Your task to perform on an android device: turn notification dots on Image 0: 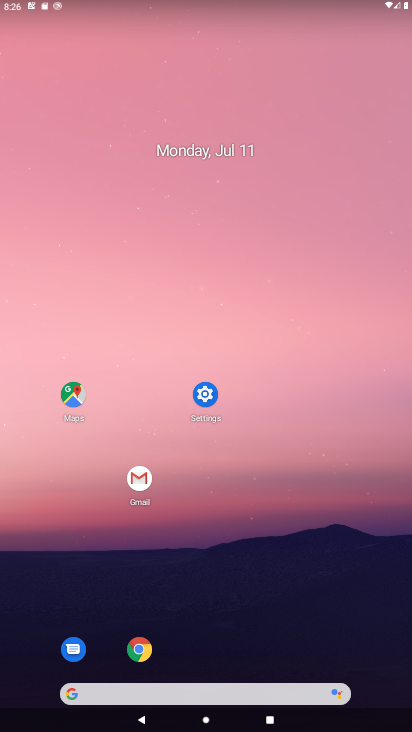
Step 0: click (195, 390)
Your task to perform on an android device: turn notification dots on Image 1: 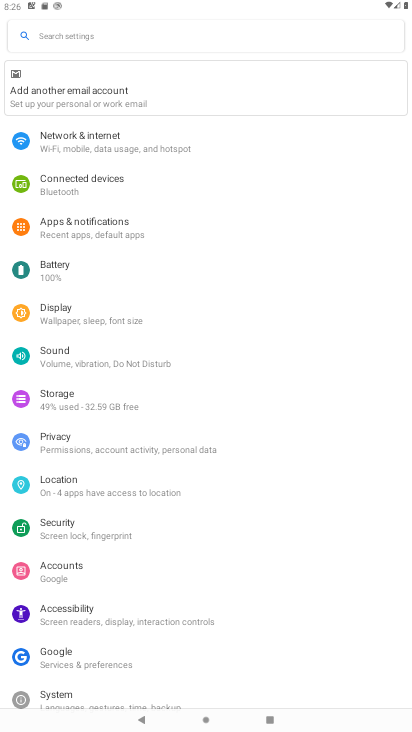
Step 1: click (82, 216)
Your task to perform on an android device: turn notification dots on Image 2: 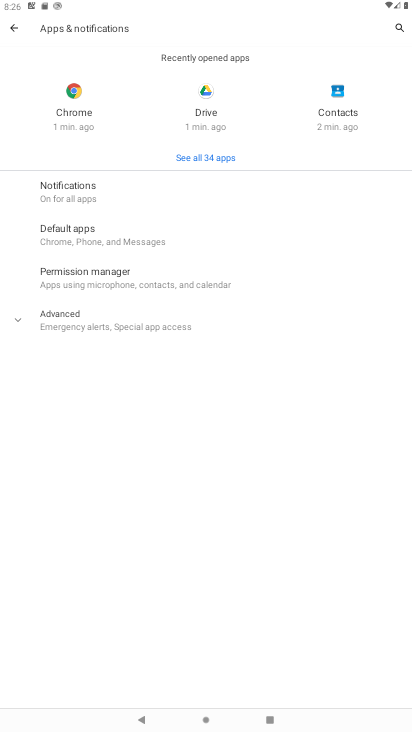
Step 2: click (81, 195)
Your task to perform on an android device: turn notification dots on Image 3: 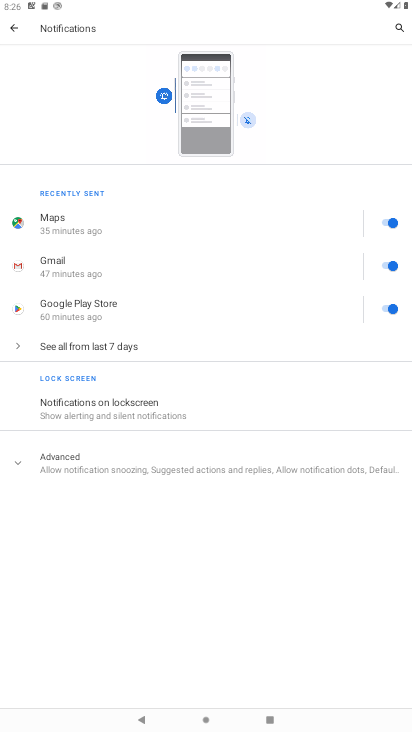
Step 3: click (25, 461)
Your task to perform on an android device: turn notification dots on Image 4: 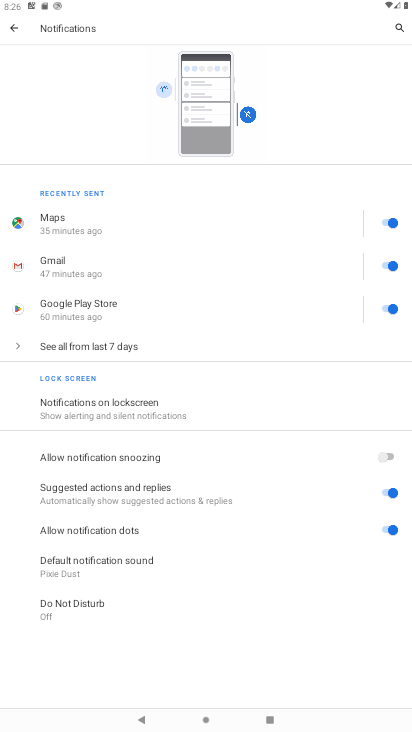
Step 4: task complete